Your task to perform on an android device: Go to Google maps Image 0: 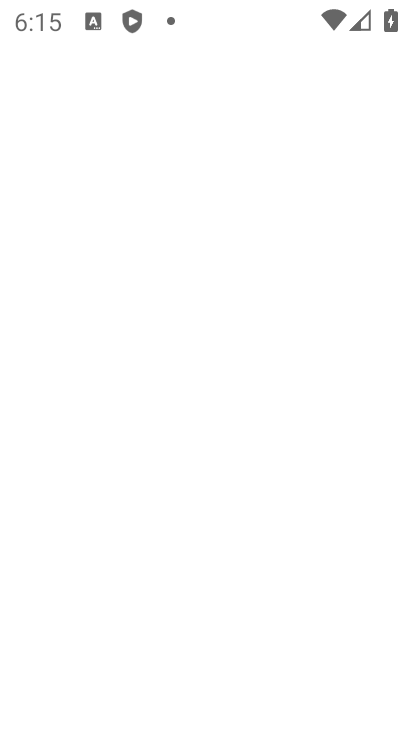
Step 0: press home button
Your task to perform on an android device: Go to Google maps Image 1: 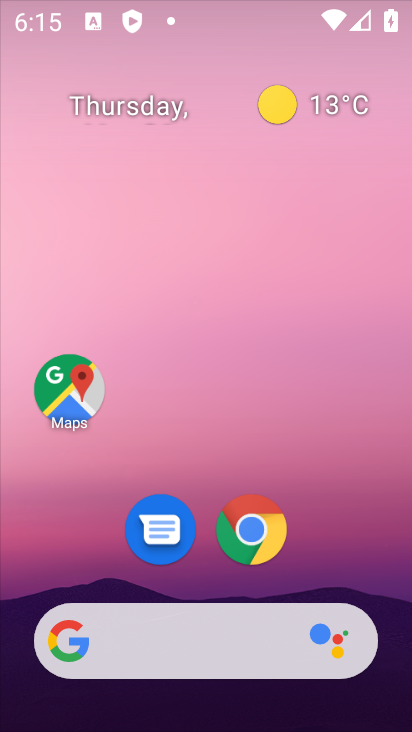
Step 1: drag from (262, 674) to (409, 475)
Your task to perform on an android device: Go to Google maps Image 2: 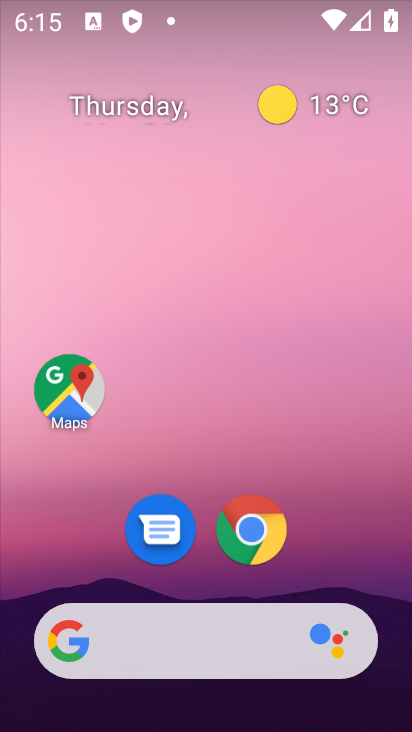
Step 2: drag from (222, 580) to (231, 33)
Your task to perform on an android device: Go to Google maps Image 3: 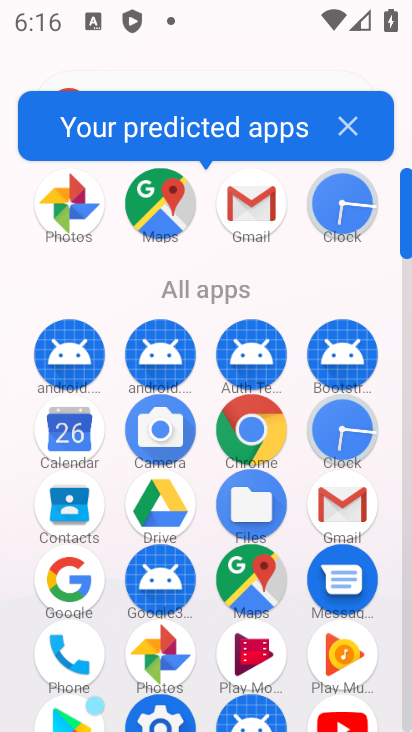
Step 3: click (251, 564)
Your task to perform on an android device: Go to Google maps Image 4: 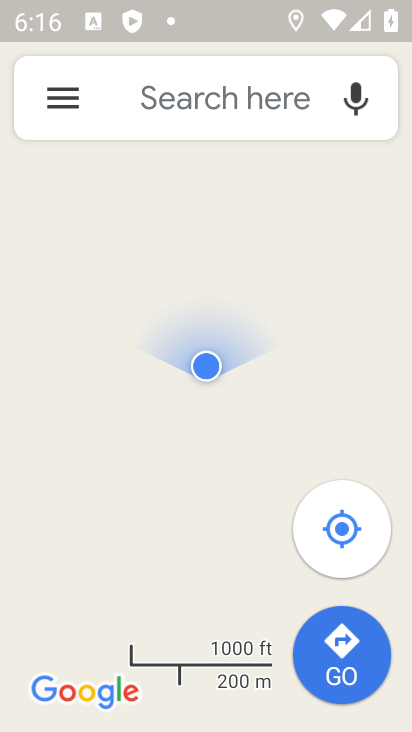
Step 4: task complete